Your task to perform on an android device: turn notification dots on Image 0: 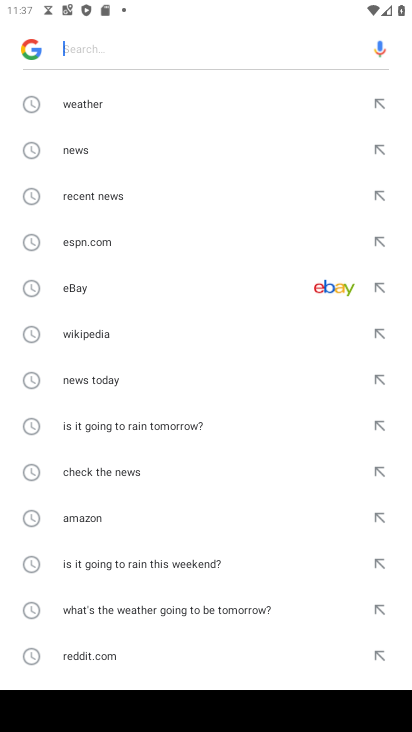
Step 0: press back button
Your task to perform on an android device: turn notification dots on Image 1: 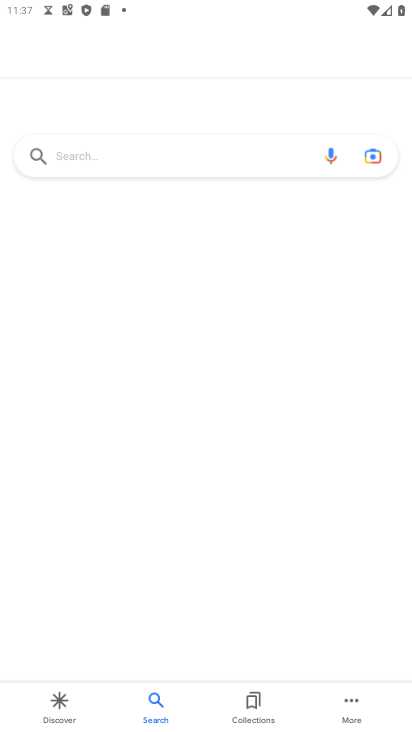
Step 1: press back button
Your task to perform on an android device: turn notification dots on Image 2: 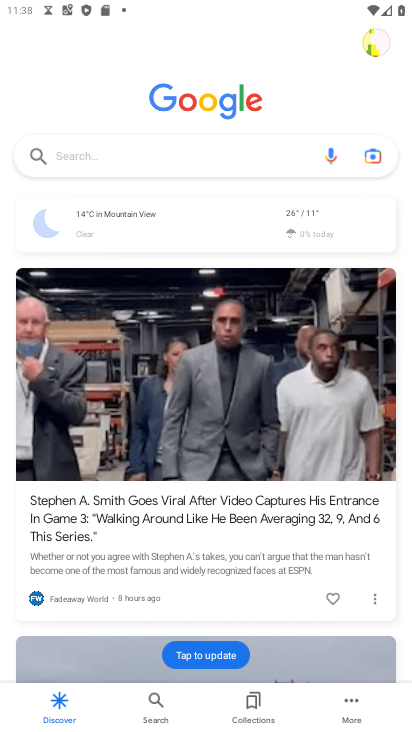
Step 2: press back button
Your task to perform on an android device: turn notification dots on Image 3: 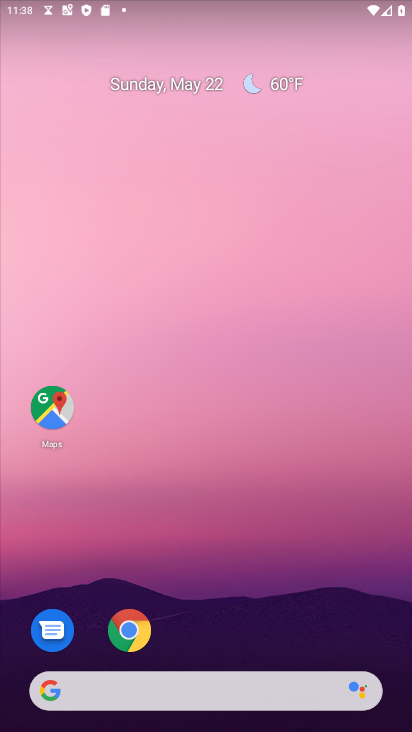
Step 3: drag from (241, 604) to (193, 59)
Your task to perform on an android device: turn notification dots on Image 4: 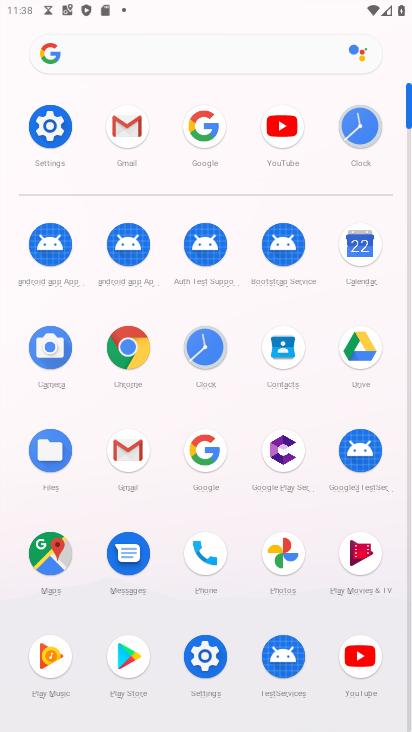
Step 4: click (204, 655)
Your task to perform on an android device: turn notification dots on Image 5: 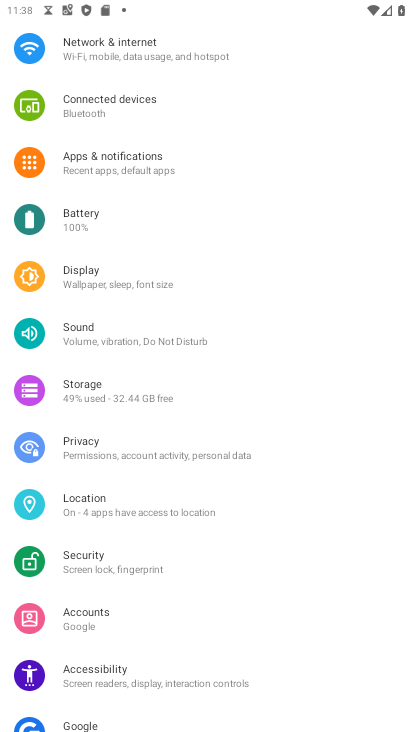
Step 5: click (141, 161)
Your task to perform on an android device: turn notification dots on Image 6: 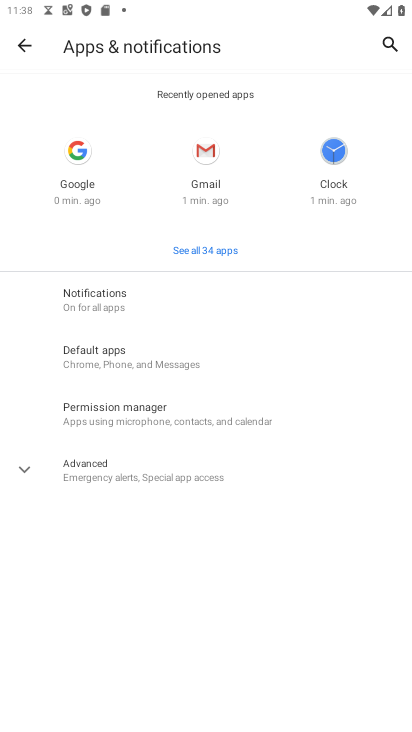
Step 6: click (101, 303)
Your task to perform on an android device: turn notification dots on Image 7: 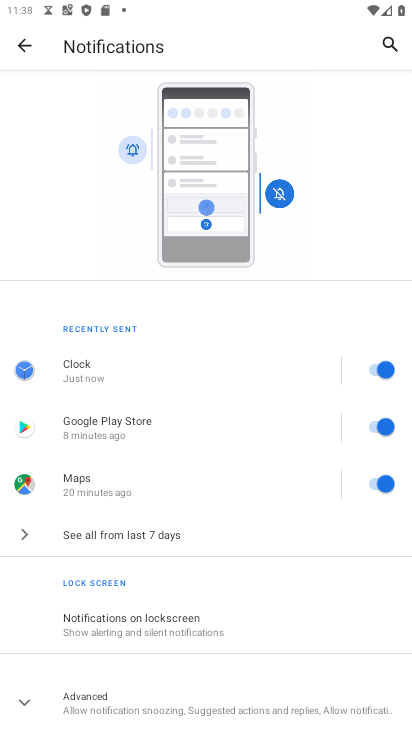
Step 7: drag from (155, 495) to (171, 403)
Your task to perform on an android device: turn notification dots on Image 8: 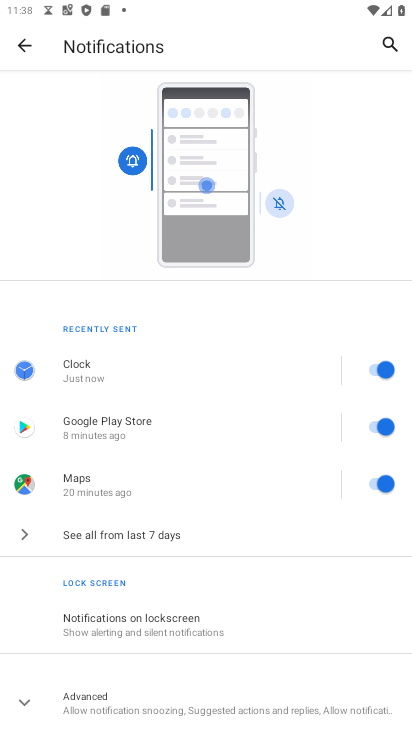
Step 8: drag from (163, 648) to (212, 481)
Your task to perform on an android device: turn notification dots on Image 9: 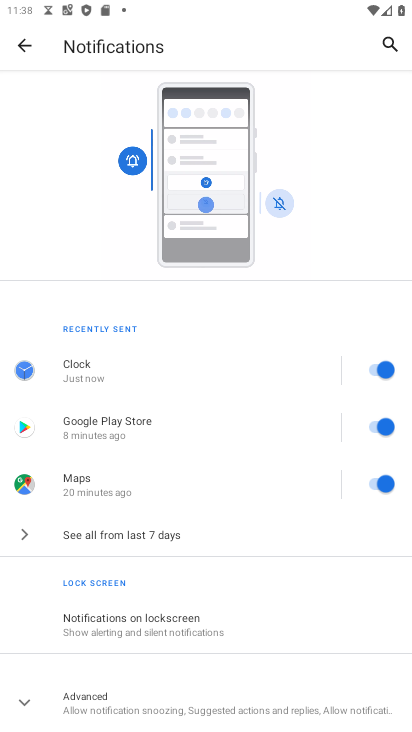
Step 9: click (172, 702)
Your task to perform on an android device: turn notification dots on Image 10: 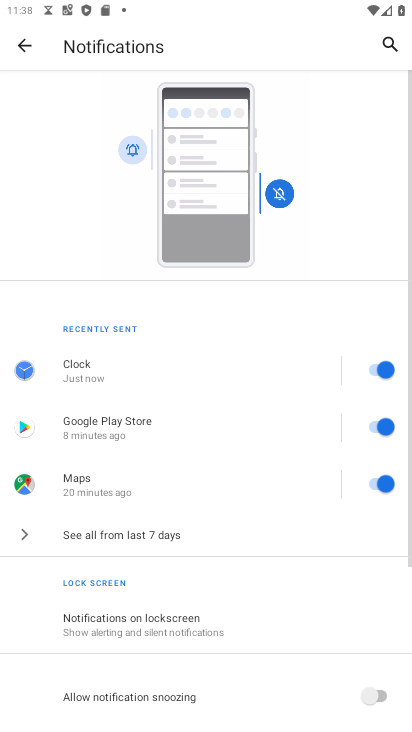
Step 10: drag from (178, 666) to (201, 522)
Your task to perform on an android device: turn notification dots on Image 11: 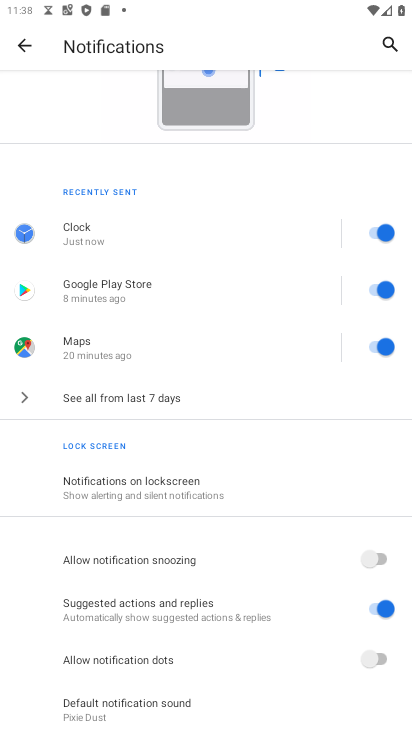
Step 11: click (374, 660)
Your task to perform on an android device: turn notification dots on Image 12: 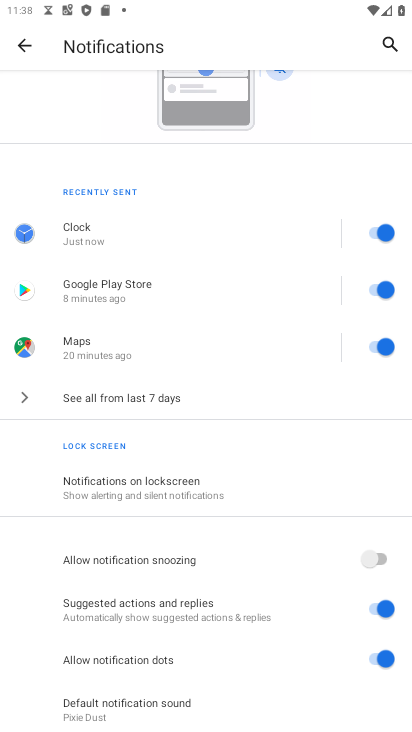
Step 12: task complete